Your task to perform on an android device: check android version Image 0: 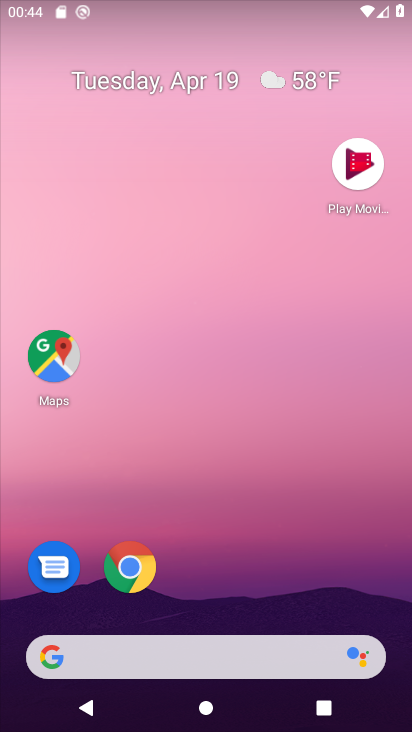
Step 0: drag from (211, 600) to (294, 64)
Your task to perform on an android device: check android version Image 1: 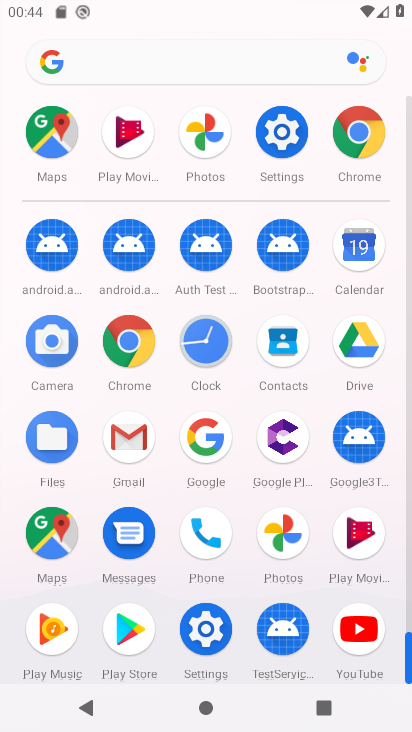
Step 1: click (196, 634)
Your task to perform on an android device: check android version Image 2: 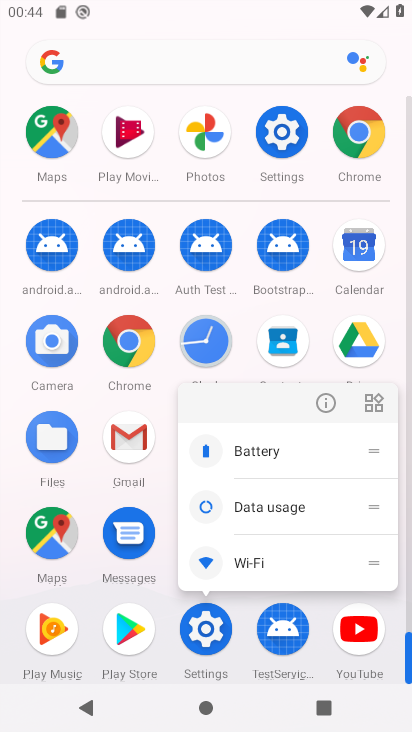
Step 2: click (330, 403)
Your task to perform on an android device: check android version Image 3: 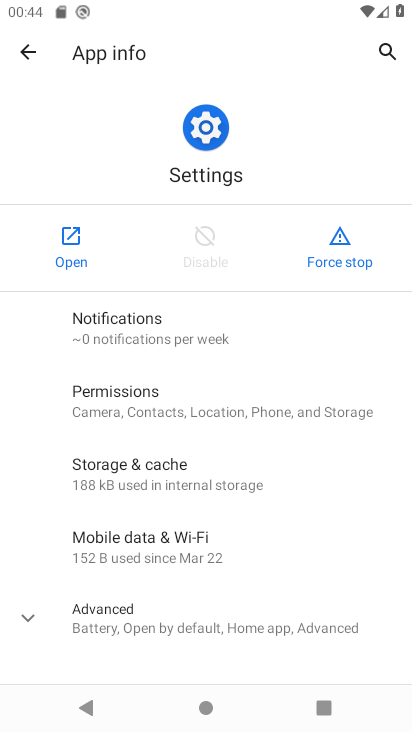
Step 3: click (63, 239)
Your task to perform on an android device: check android version Image 4: 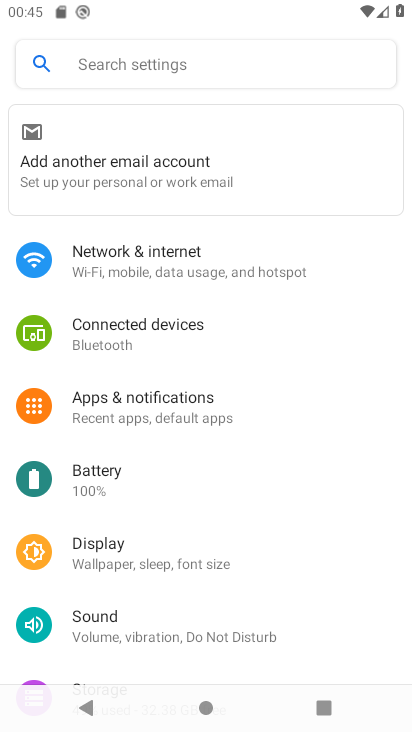
Step 4: drag from (243, 564) to (307, 73)
Your task to perform on an android device: check android version Image 5: 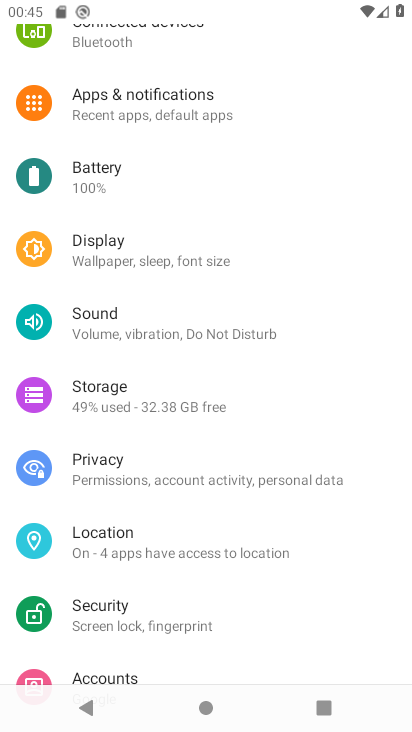
Step 5: drag from (164, 608) to (284, 32)
Your task to perform on an android device: check android version Image 6: 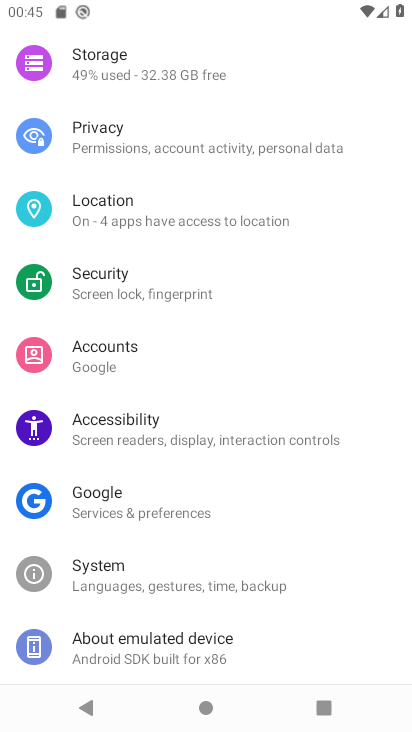
Step 6: click (160, 650)
Your task to perform on an android device: check android version Image 7: 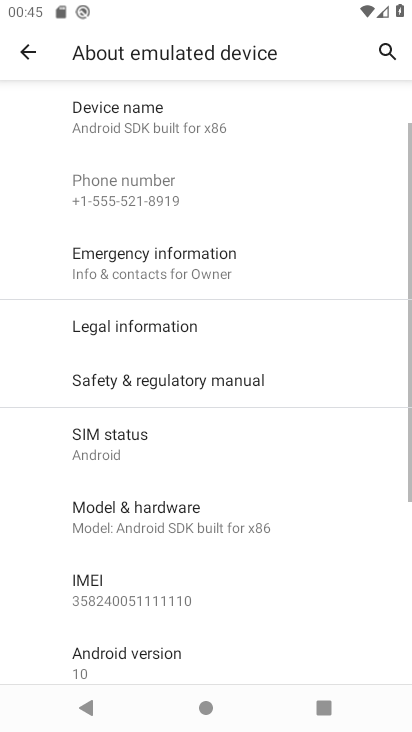
Step 7: drag from (185, 620) to (268, 191)
Your task to perform on an android device: check android version Image 8: 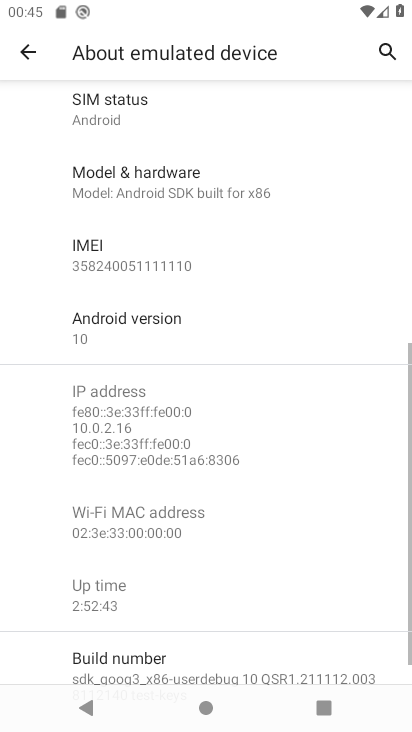
Step 8: click (120, 340)
Your task to perform on an android device: check android version Image 9: 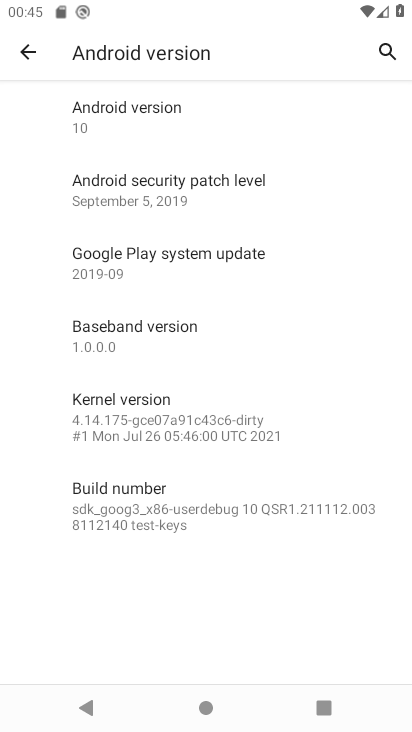
Step 9: click (160, 130)
Your task to perform on an android device: check android version Image 10: 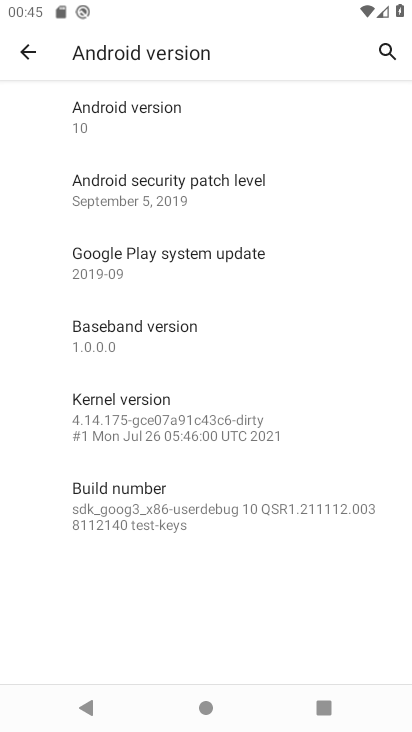
Step 10: task complete